Your task to perform on an android device: set default search engine in the chrome app Image 0: 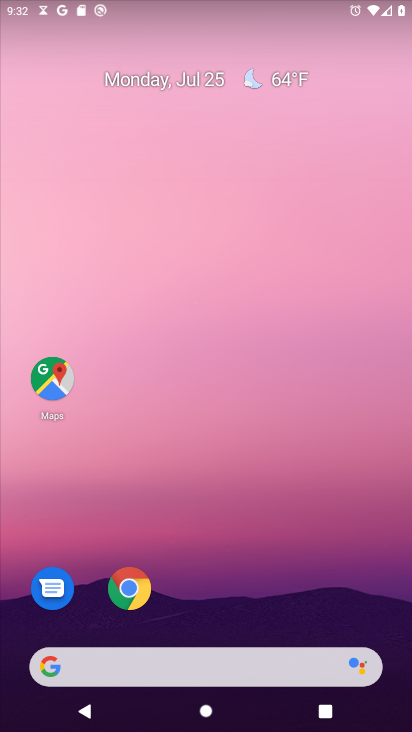
Step 0: click (132, 597)
Your task to perform on an android device: set default search engine in the chrome app Image 1: 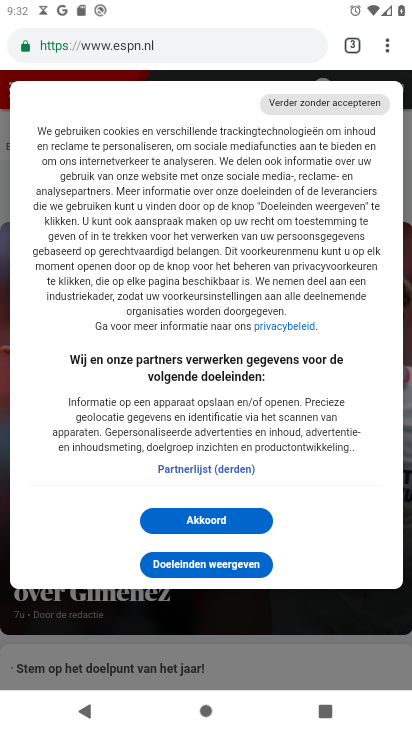
Step 1: drag from (384, 48) to (229, 552)
Your task to perform on an android device: set default search engine in the chrome app Image 2: 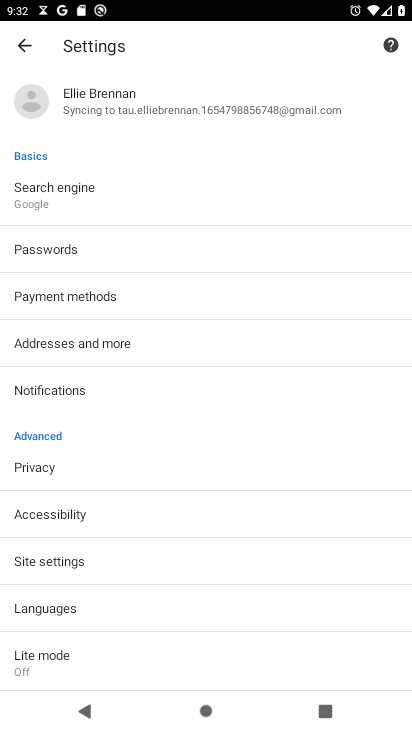
Step 2: click (63, 206)
Your task to perform on an android device: set default search engine in the chrome app Image 3: 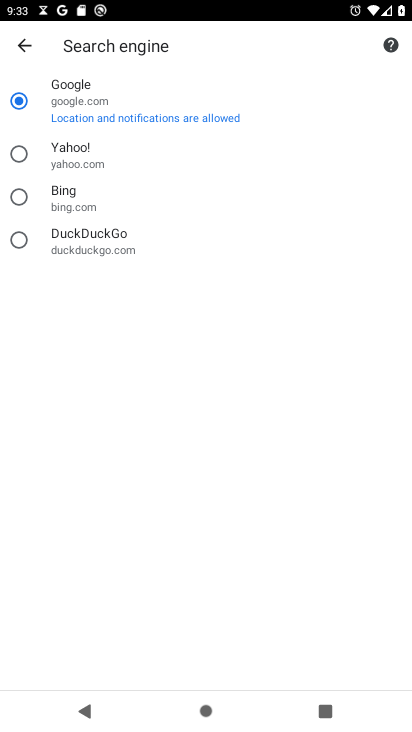
Step 3: click (97, 141)
Your task to perform on an android device: set default search engine in the chrome app Image 4: 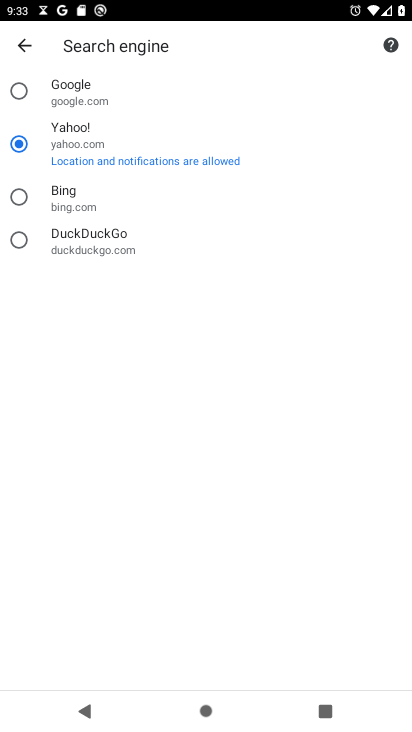
Step 4: task complete